Your task to perform on an android device: open a new tab in the chrome app Image 0: 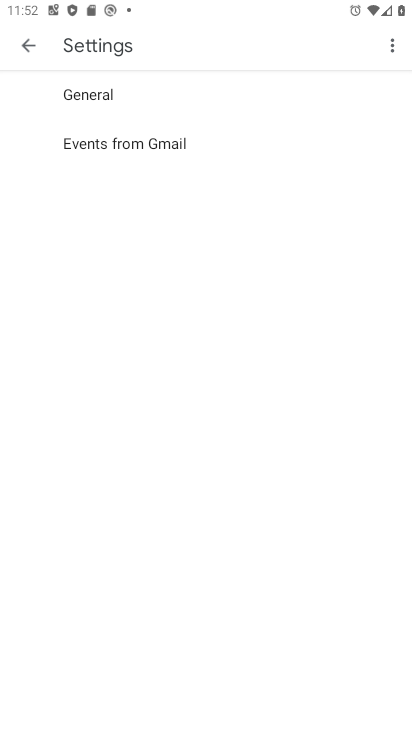
Step 0: press home button
Your task to perform on an android device: open a new tab in the chrome app Image 1: 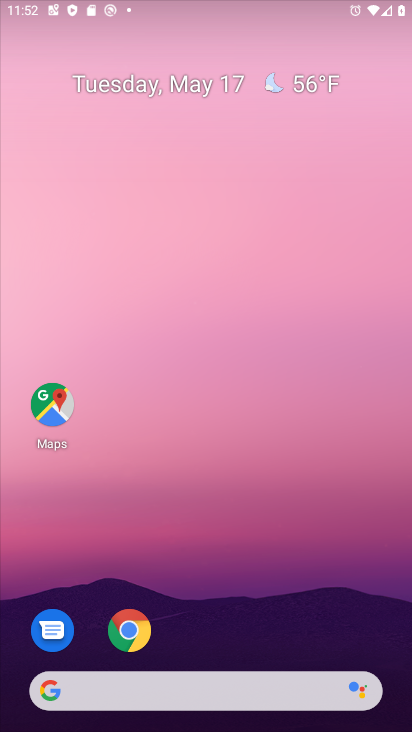
Step 1: drag from (340, 637) to (324, 138)
Your task to perform on an android device: open a new tab in the chrome app Image 2: 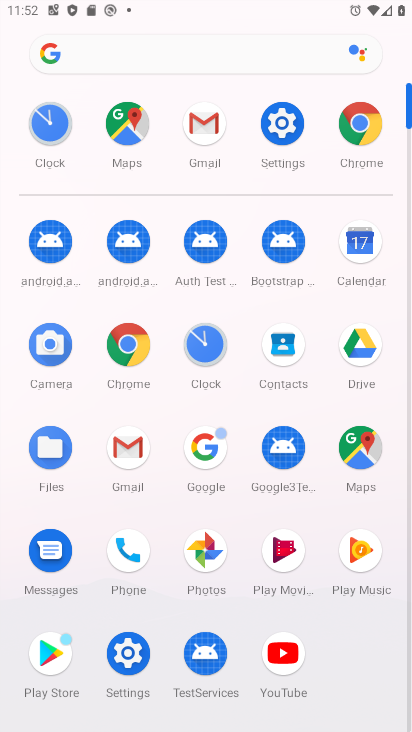
Step 2: click (140, 357)
Your task to perform on an android device: open a new tab in the chrome app Image 3: 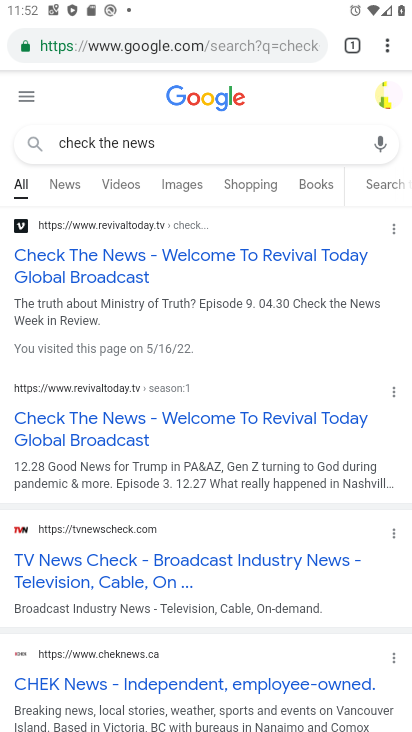
Step 3: click (352, 42)
Your task to perform on an android device: open a new tab in the chrome app Image 4: 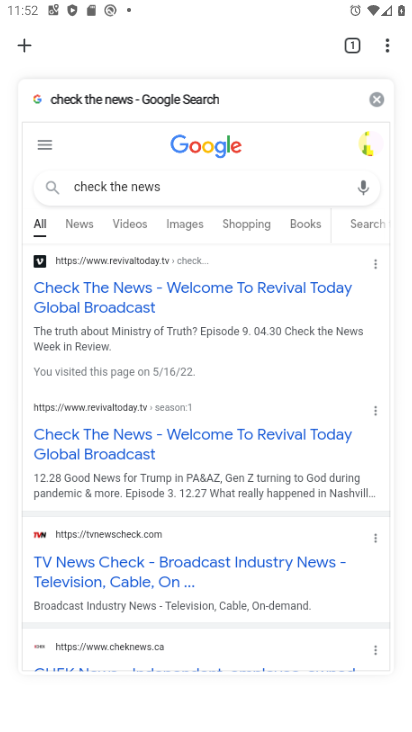
Step 4: click (19, 51)
Your task to perform on an android device: open a new tab in the chrome app Image 5: 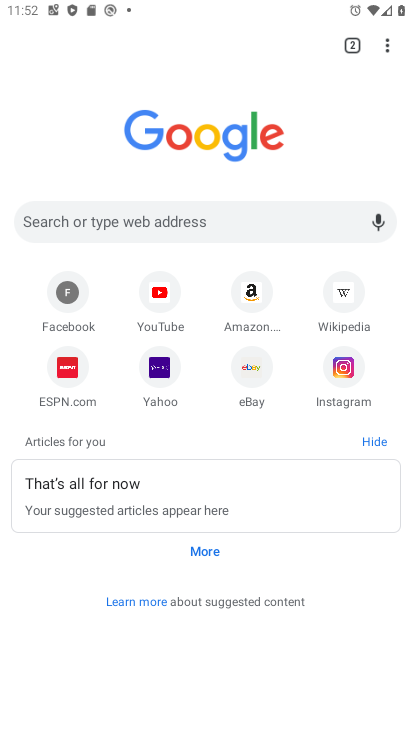
Step 5: task complete